Your task to perform on an android device: Open Youtube and go to the subscriptions tab Image 0: 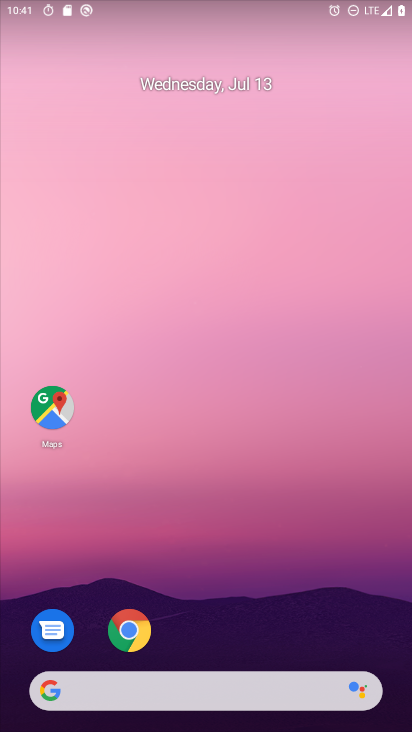
Step 0: drag from (379, 613) to (295, 221)
Your task to perform on an android device: Open Youtube and go to the subscriptions tab Image 1: 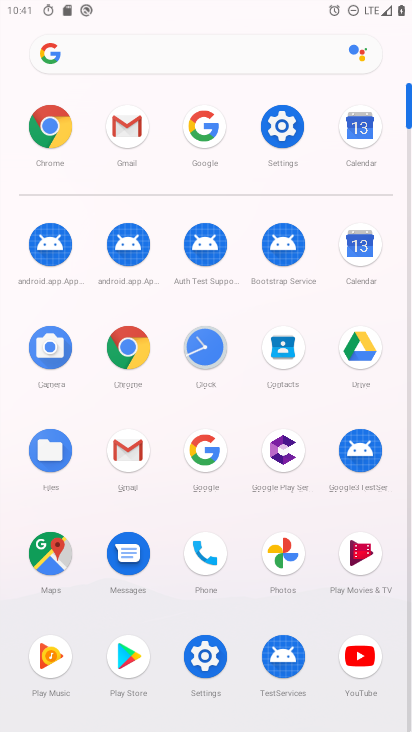
Step 1: click (363, 664)
Your task to perform on an android device: Open Youtube and go to the subscriptions tab Image 2: 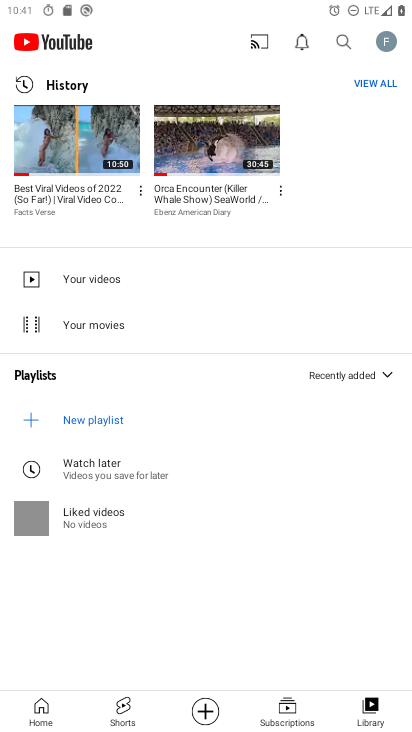
Step 2: click (284, 705)
Your task to perform on an android device: Open Youtube and go to the subscriptions tab Image 3: 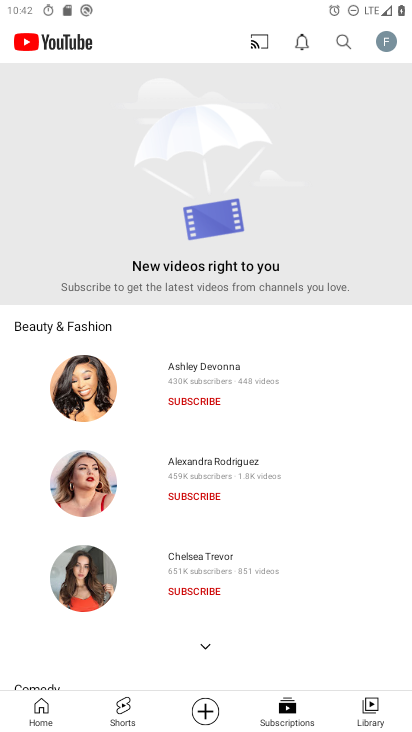
Step 3: task complete